Your task to perform on an android device: show emergency info Image 0: 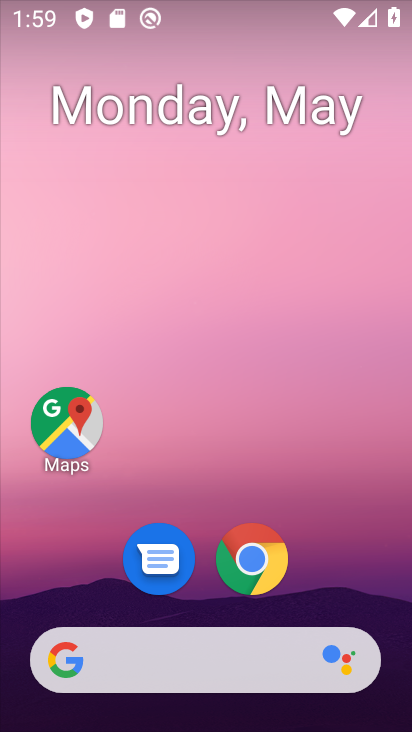
Step 0: drag from (368, 578) to (386, 12)
Your task to perform on an android device: show emergency info Image 1: 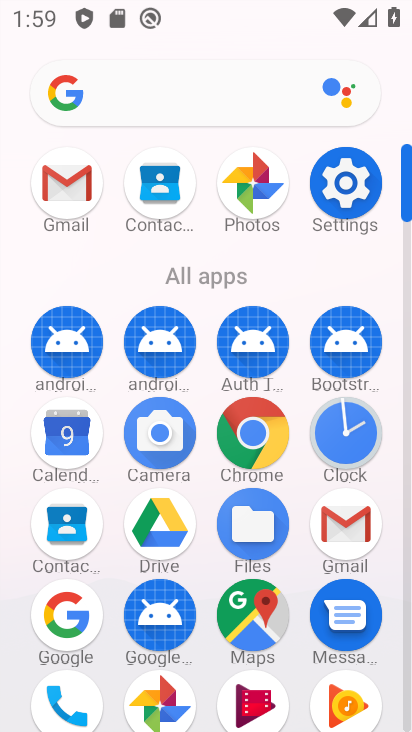
Step 1: click (349, 188)
Your task to perform on an android device: show emergency info Image 2: 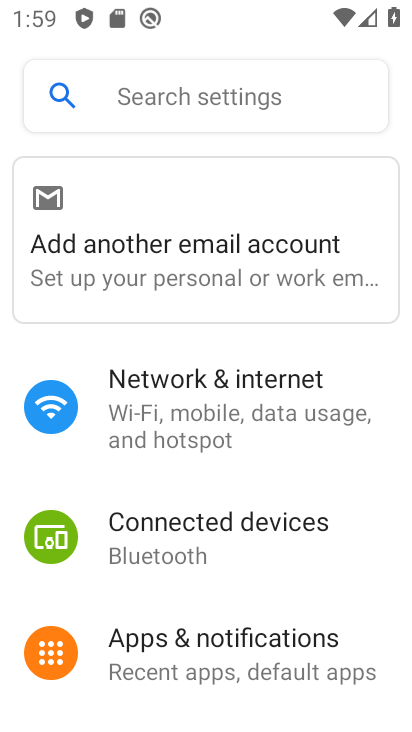
Step 2: drag from (389, 682) to (408, 95)
Your task to perform on an android device: show emergency info Image 3: 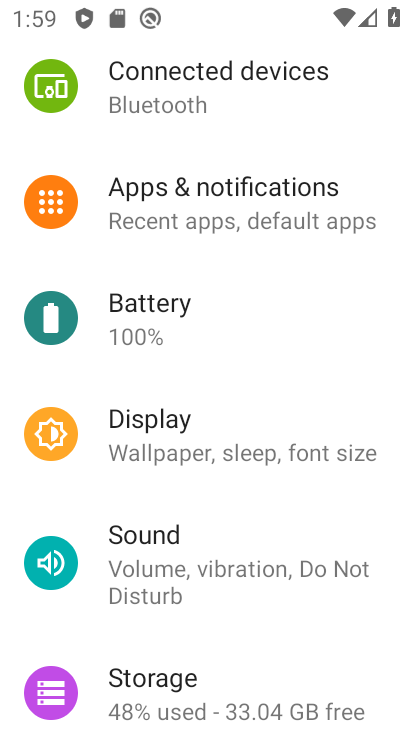
Step 3: drag from (339, 610) to (329, 149)
Your task to perform on an android device: show emergency info Image 4: 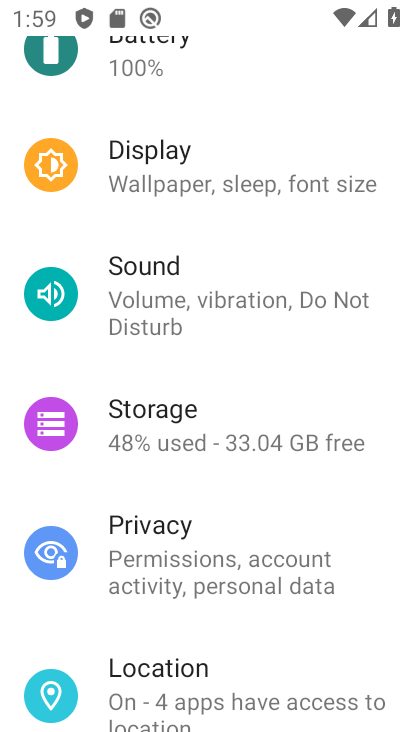
Step 4: drag from (318, 596) to (318, 147)
Your task to perform on an android device: show emergency info Image 5: 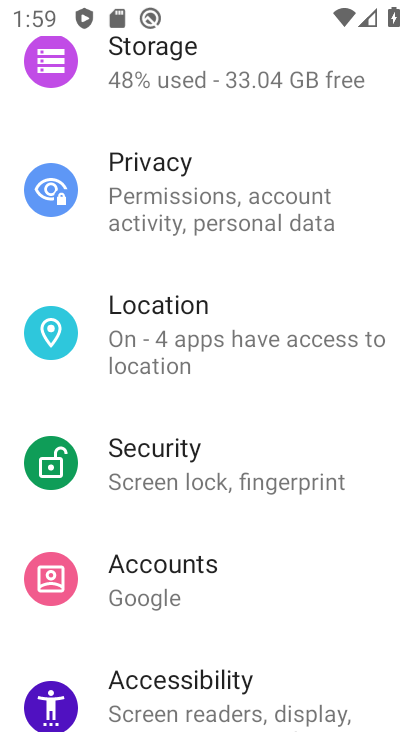
Step 5: drag from (257, 601) to (269, 97)
Your task to perform on an android device: show emergency info Image 6: 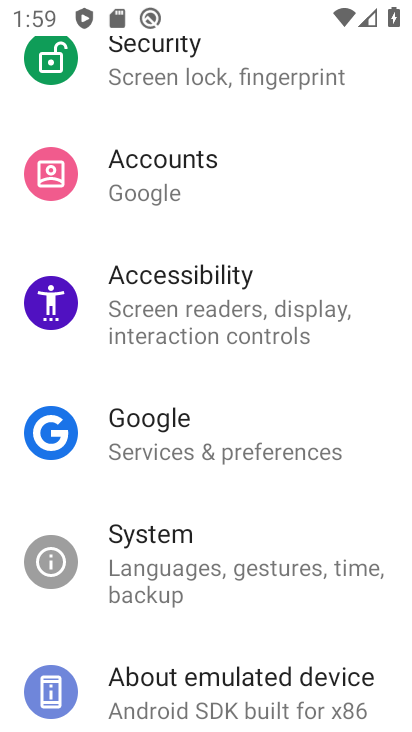
Step 6: drag from (240, 619) to (217, 147)
Your task to perform on an android device: show emergency info Image 7: 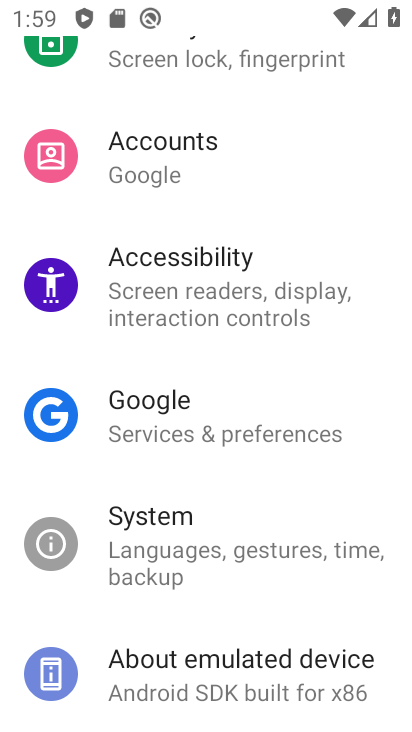
Step 7: click (206, 676)
Your task to perform on an android device: show emergency info Image 8: 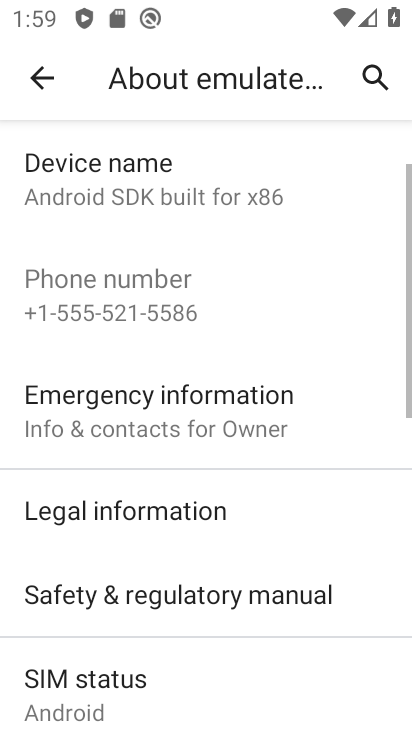
Step 8: click (196, 424)
Your task to perform on an android device: show emergency info Image 9: 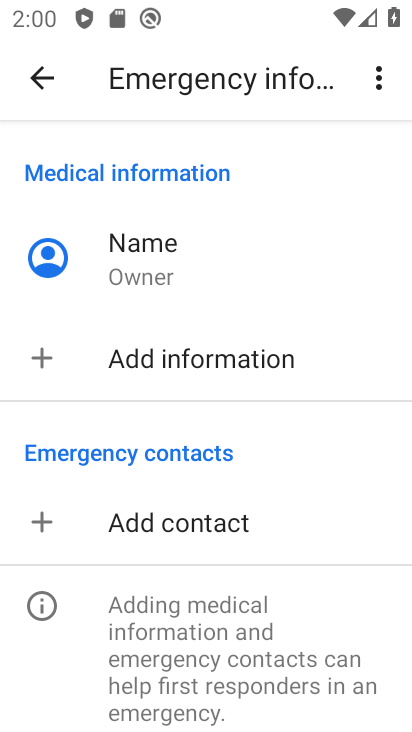
Step 9: task complete